Your task to perform on an android device: turn on location history Image 0: 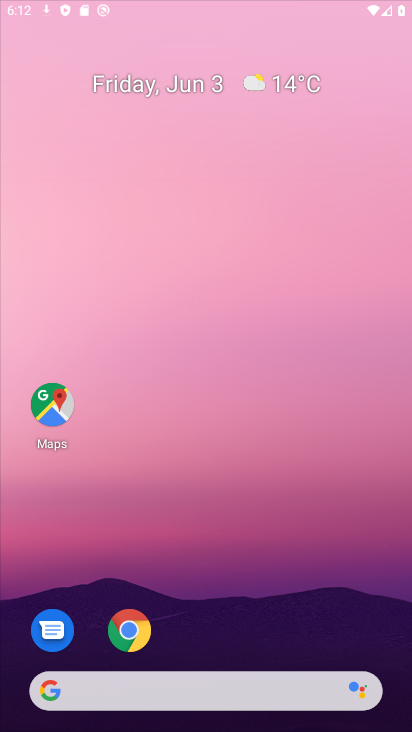
Step 0: click (125, 637)
Your task to perform on an android device: turn on location history Image 1: 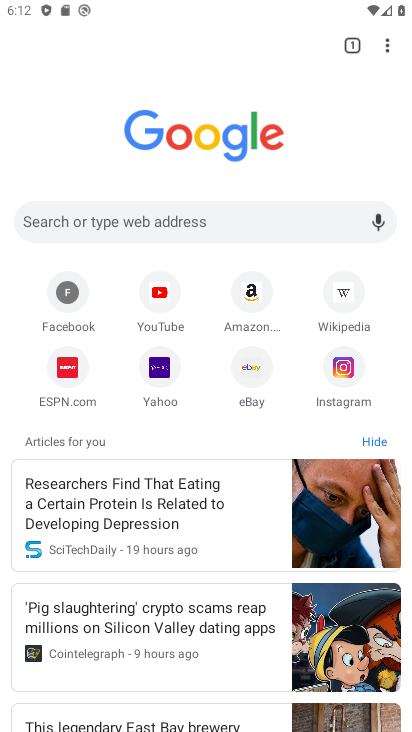
Step 1: press home button
Your task to perform on an android device: turn on location history Image 2: 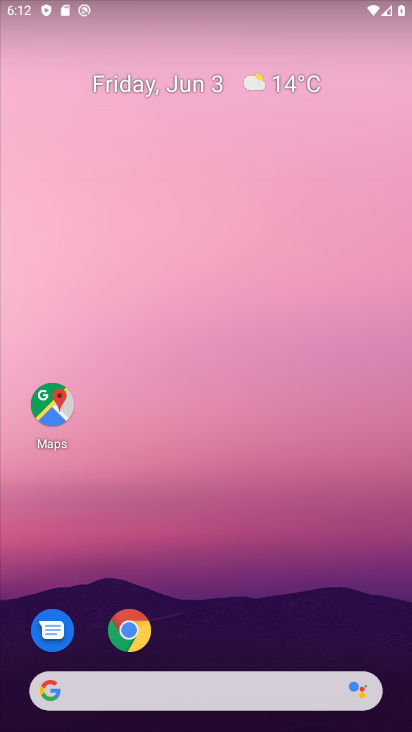
Step 2: drag from (194, 642) to (230, 188)
Your task to perform on an android device: turn on location history Image 3: 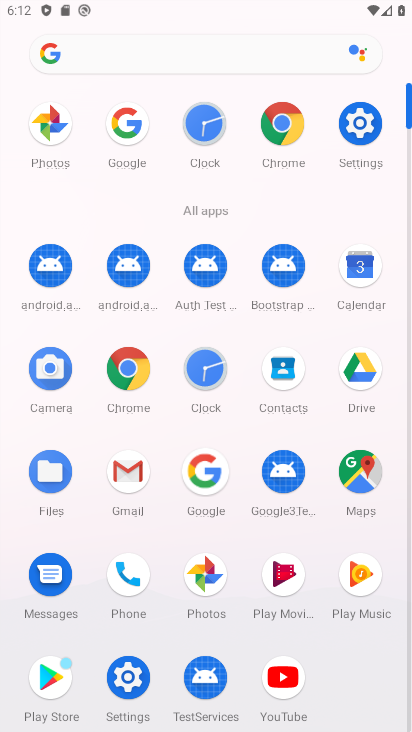
Step 3: click (362, 156)
Your task to perform on an android device: turn on location history Image 4: 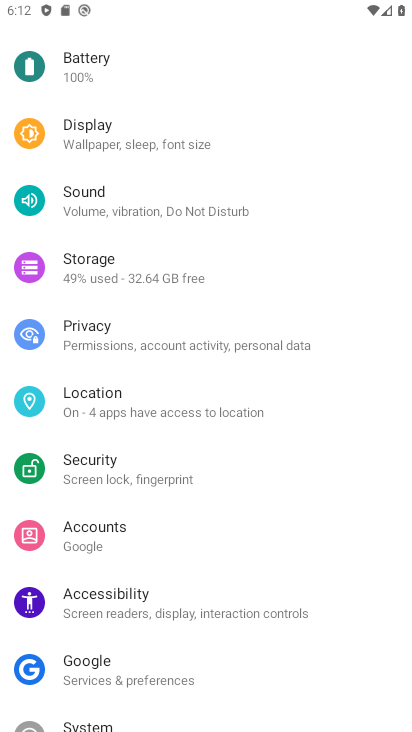
Step 4: click (103, 411)
Your task to perform on an android device: turn on location history Image 5: 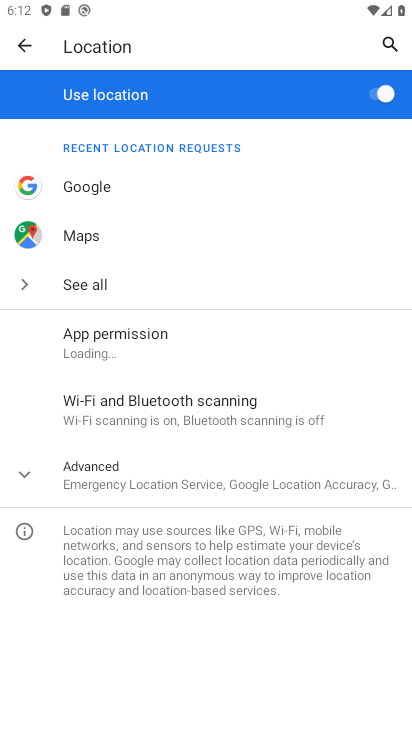
Step 5: click (91, 478)
Your task to perform on an android device: turn on location history Image 6: 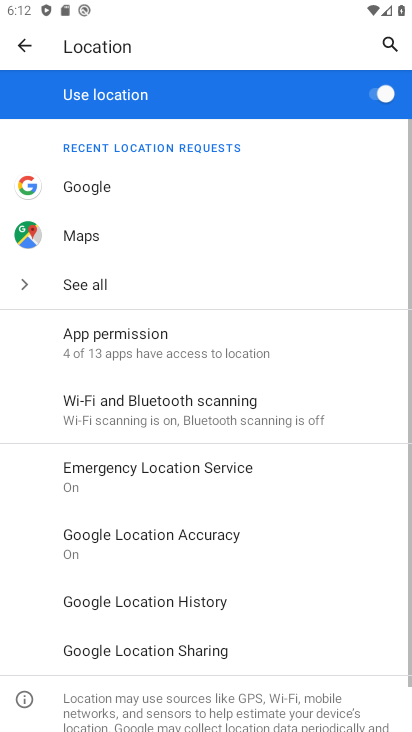
Step 6: click (145, 596)
Your task to perform on an android device: turn on location history Image 7: 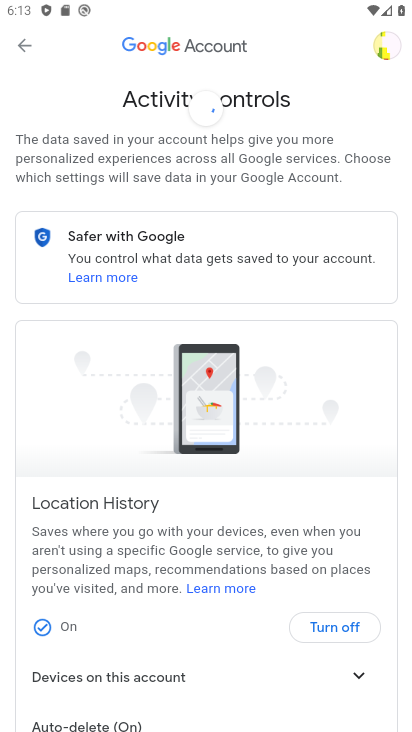
Step 7: click (332, 620)
Your task to perform on an android device: turn on location history Image 8: 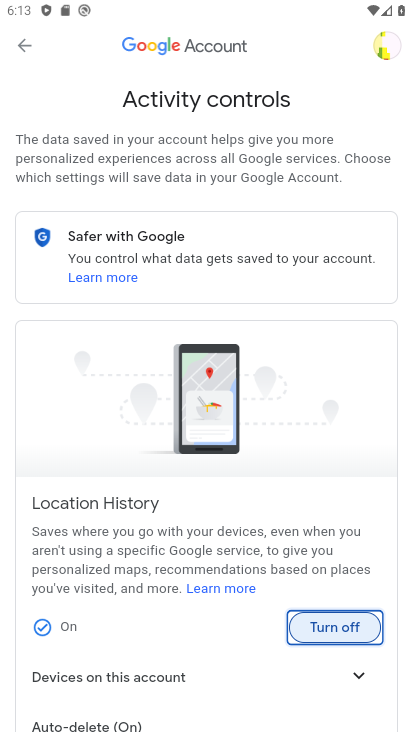
Step 8: task complete